Your task to perform on an android device: change the upload size in google photos Image 0: 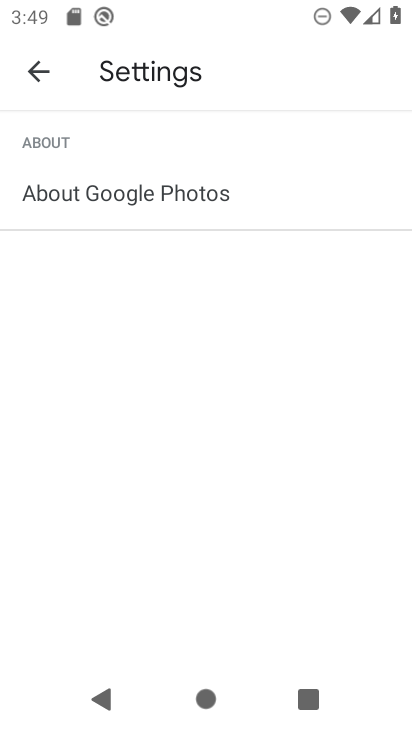
Step 0: press back button
Your task to perform on an android device: change the upload size in google photos Image 1: 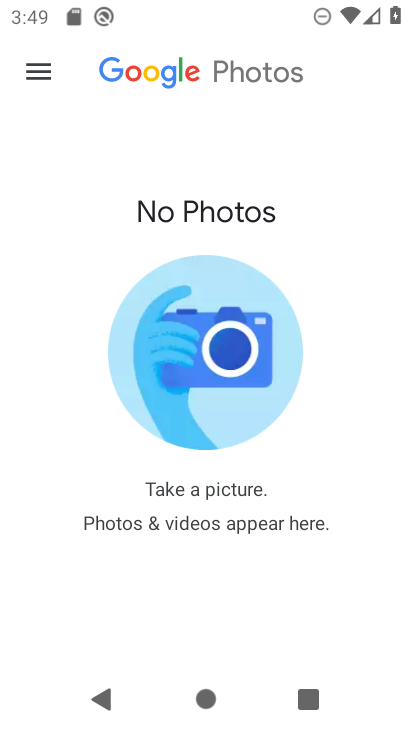
Step 1: press back button
Your task to perform on an android device: change the upload size in google photos Image 2: 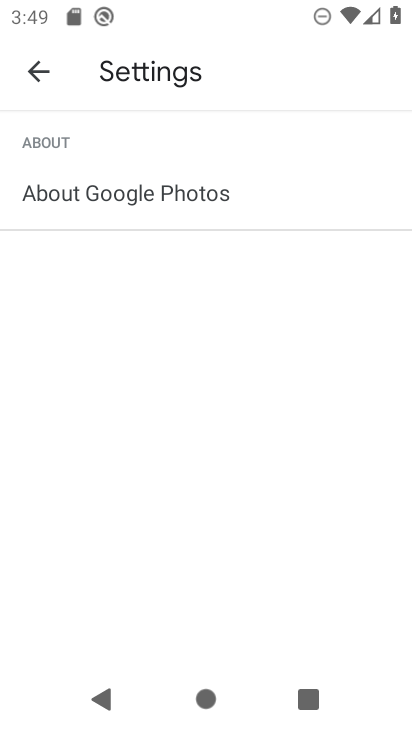
Step 2: press back button
Your task to perform on an android device: change the upload size in google photos Image 3: 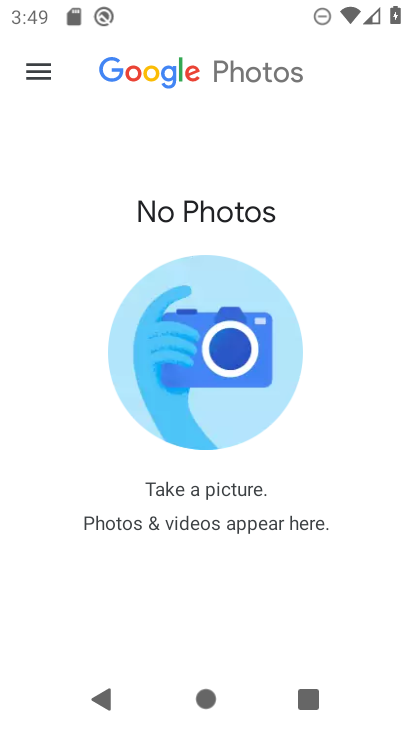
Step 3: click (38, 81)
Your task to perform on an android device: change the upload size in google photos Image 4: 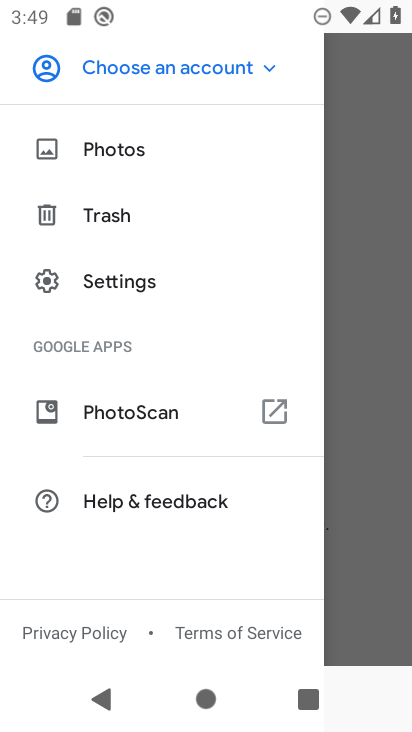
Step 4: click (117, 283)
Your task to perform on an android device: change the upload size in google photos Image 5: 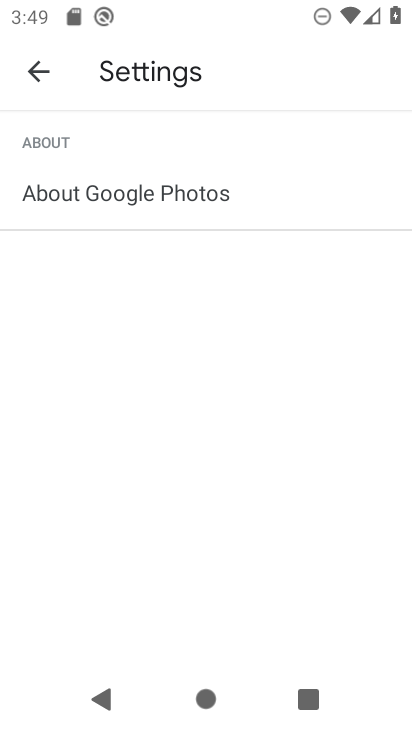
Step 5: task complete